Your task to perform on an android device: toggle translation in the chrome app Image 0: 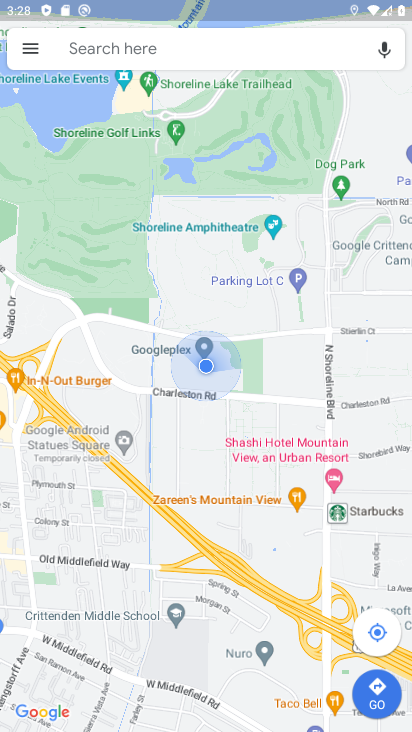
Step 0: press home button
Your task to perform on an android device: toggle translation in the chrome app Image 1: 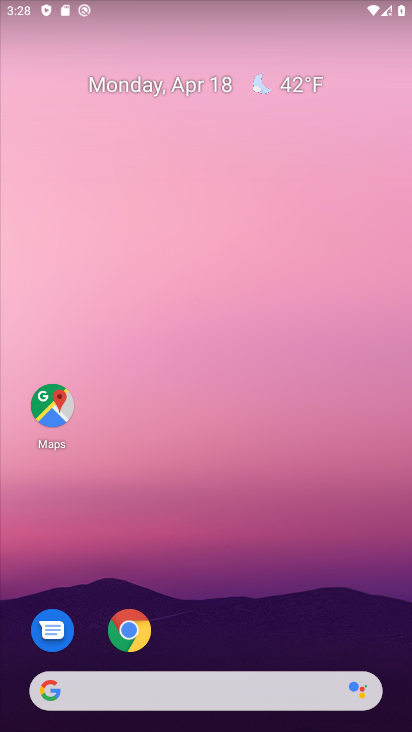
Step 1: drag from (239, 482) to (249, 222)
Your task to perform on an android device: toggle translation in the chrome app Image 2: 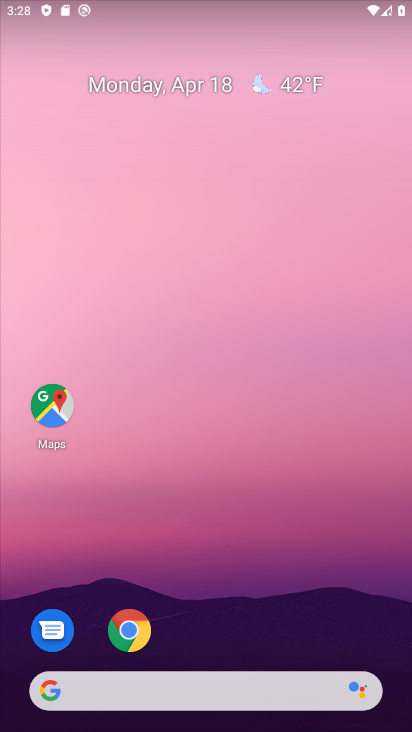
Step 2: drag from (289, 418) to (291, 194)
Your task to perform on an android device: toggle translation in the chrome app Image 3: 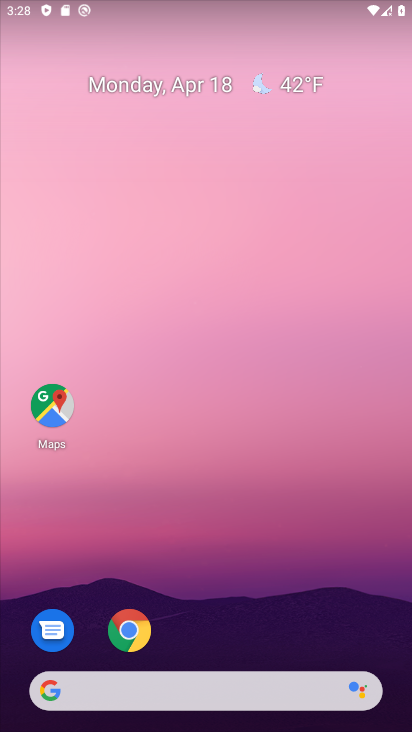
Step 3: drag from (248, 651) to (310, 264)
Your task to perform on an android device: toggle translation in the chrome app Image 4: 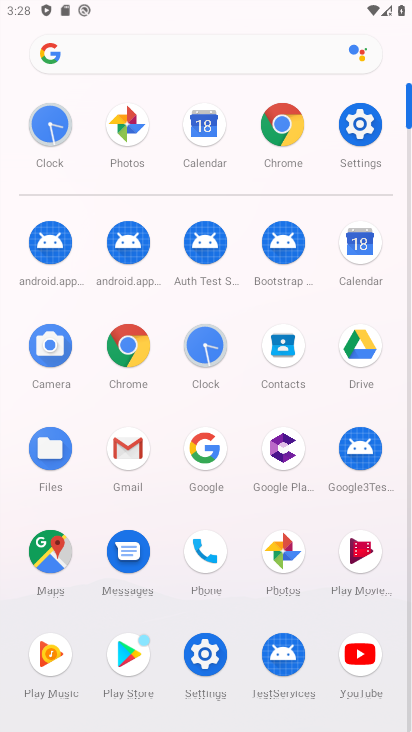
Step 4: click (281, 124)
Your task to perform on an android device: toggle translation in the chrome app Image 5: 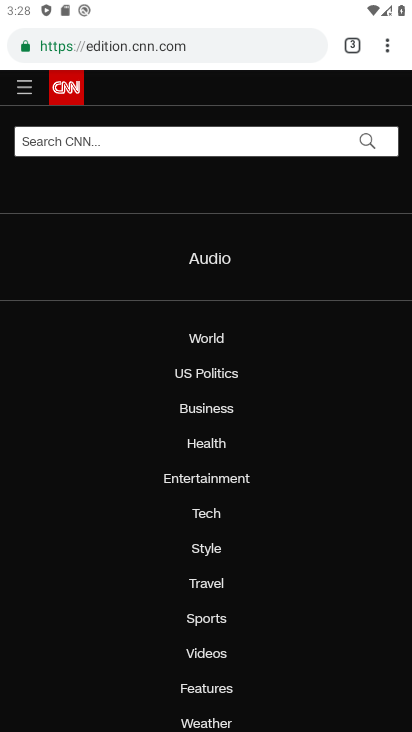
Step 5: click (397, 46)
Your task to perform on an android device: toggle translation in the chrome app Image 6: 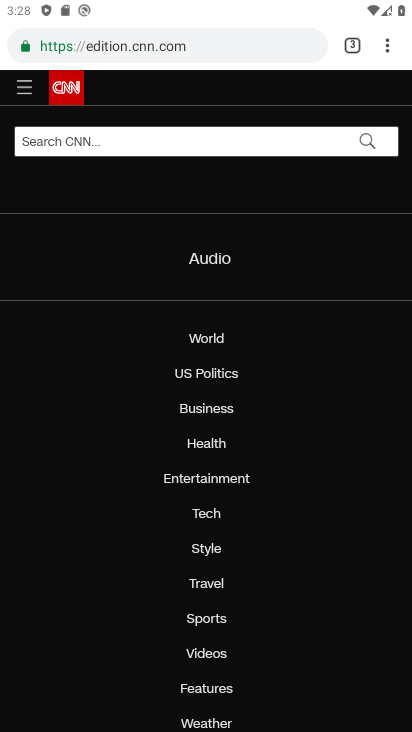
Step 6: click (394, 46)
Your task to perform on an android device: toggle translation in the chrome app Image 7: 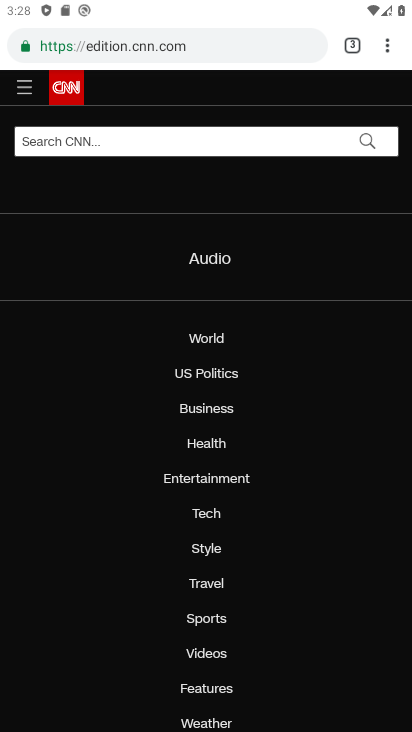
Step 7: click (382, 54)
Your task to perform on an android device: toggle translation in the chrome app Image 8: 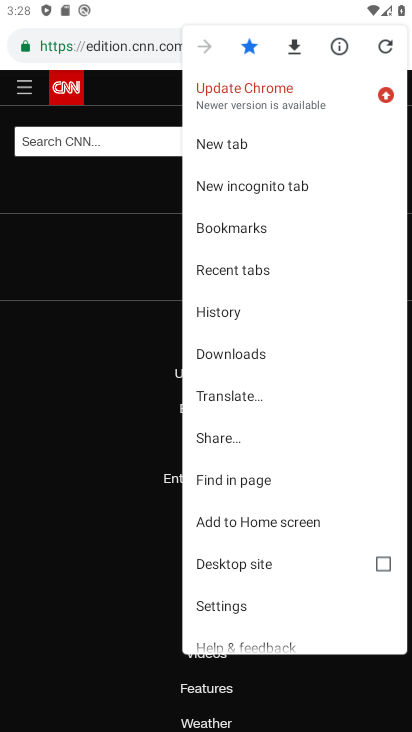
Step 8: click (236, 609)
Your task to perform on an android device: toggle translation in the chrome app Image 9: 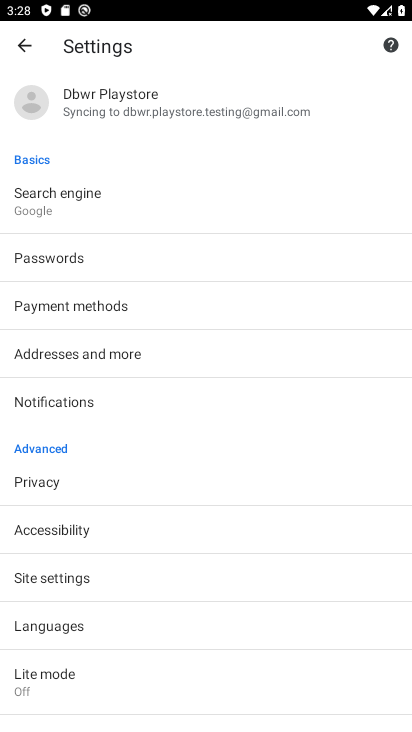
Step 9: click (86, 621)
Your task to perform on an android device: toggle translation in the chrome app Image 10: 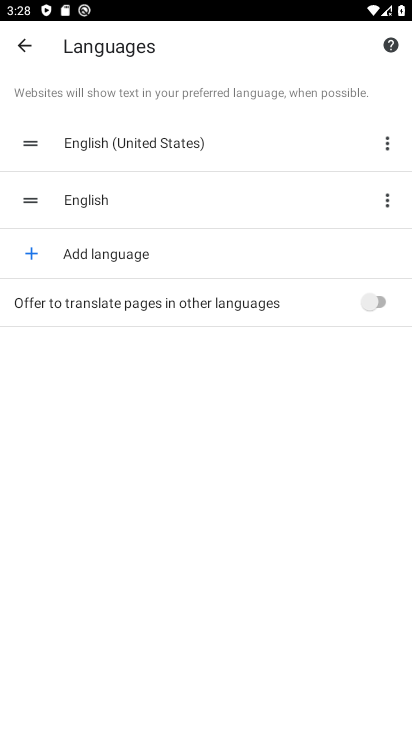
Step 10: click (383, 307)
Your task to perform on an android device: toggle translation in the chrome app Image 11: 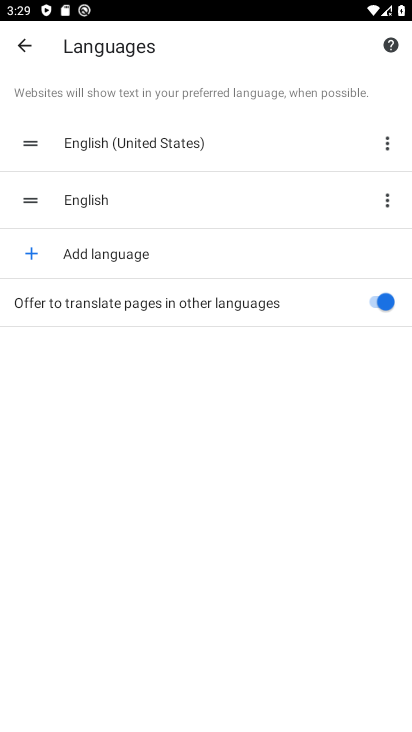
Step 11: task complete